Your task to perform on an android device: Open the web browser Image 0: 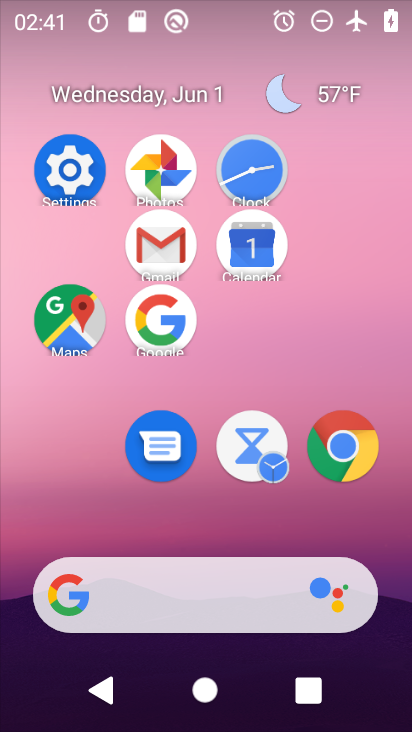
Step 0: click (355, 451)
Your task to perform on an android device: Open the web browser Image 1: 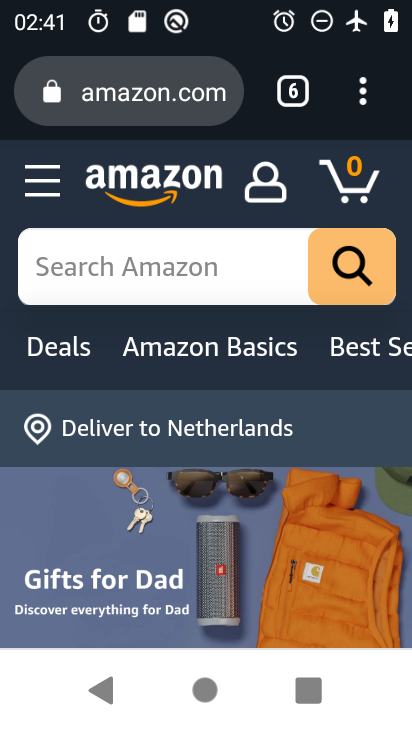
Step 1: task complete